Your task to perform on an android device: turn off notifications in google photos Image 0: 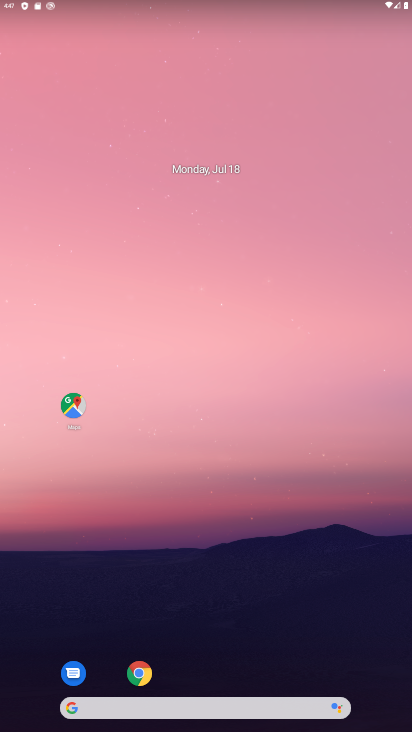
Step 0: drag from (298, 625) to (234, 181)
Your task to perform on an android device: turn off notifications in google photos Image 1: 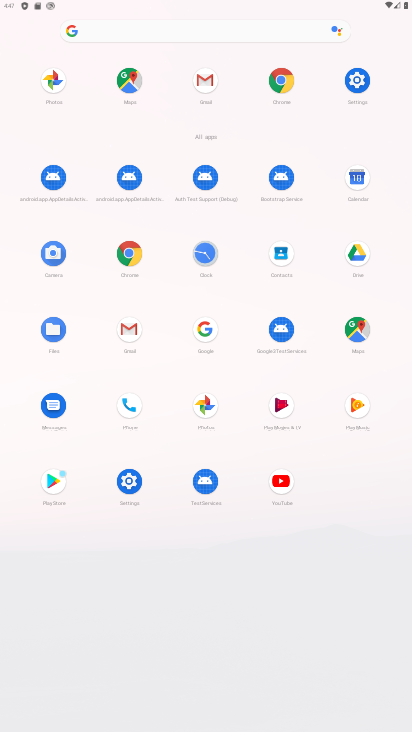
Step 1: click (194, 405)
Your task to perform on an android device: turn off notifications in google photos Image 2: 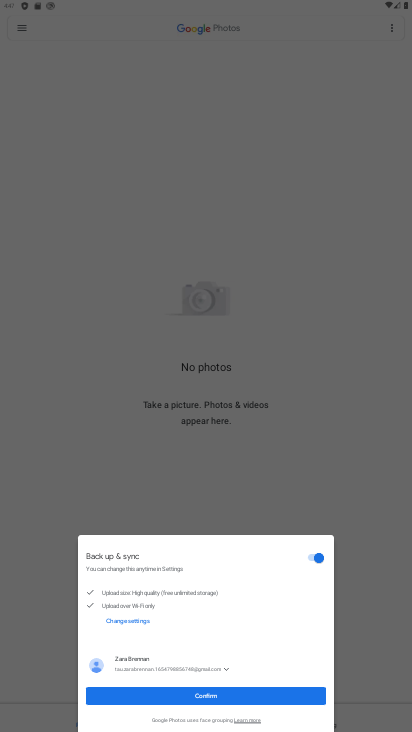
Step 2: click (188, 704)
Your task to perform on an android device: turn off notifications in google photos Image 3: 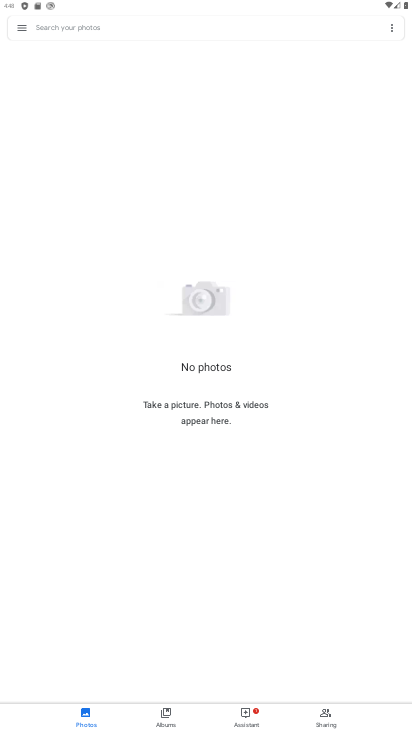
Step 3: click (12, 28)
Your task to perform on an android device: turn off notifications in google photos Image 4: 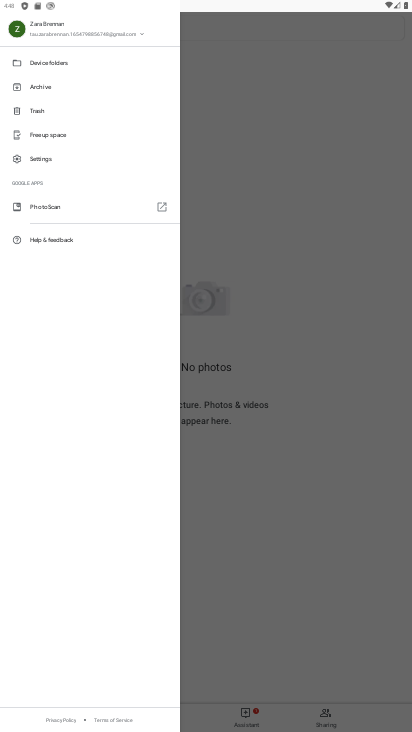
Step 4: click (39, 167)
Your task to perform on an android device: turn off notifications in google photos Image 5: 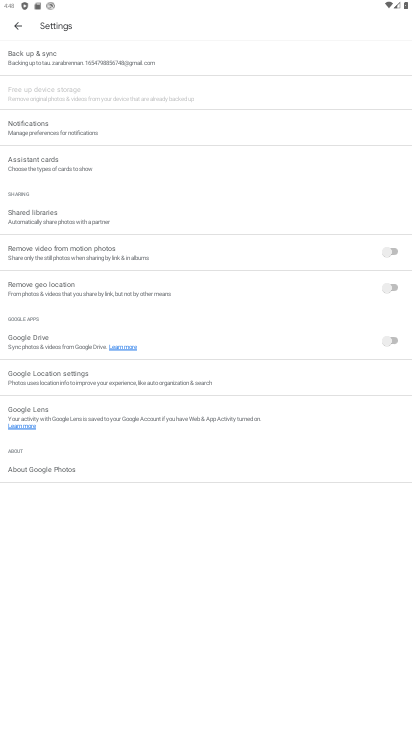
Step 5: click (66, 143)
Your task to perform on an android device: turn off notifications in google photos Image 6: 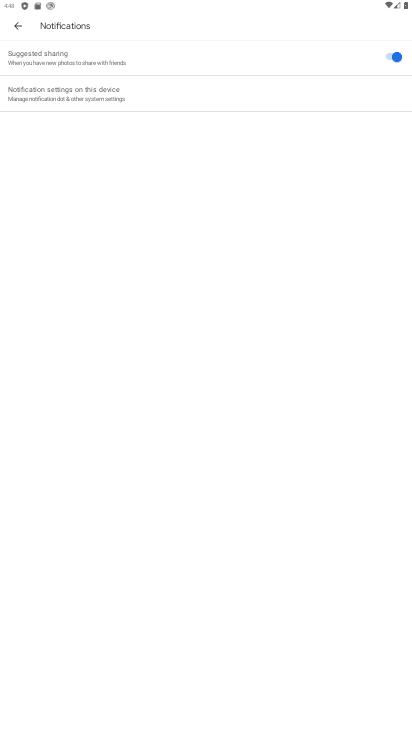
Step 6: click (391, 65)
Your task to perform on an android device: turn off notifications in google photos Image 7: 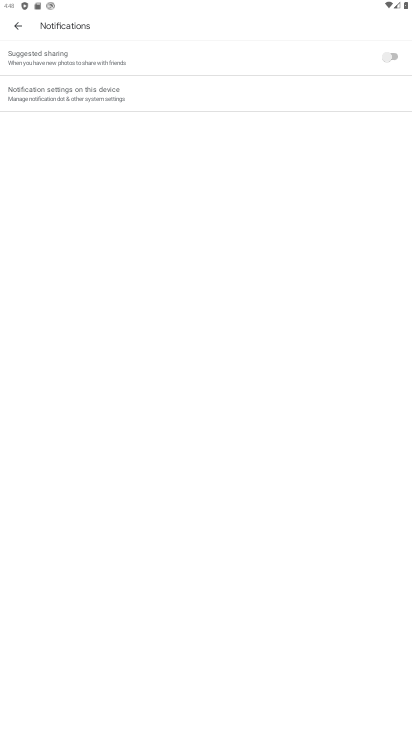
Step 7: task complete